Your task to perform on an android device: move an email to a new category in the gmail app Image 0: 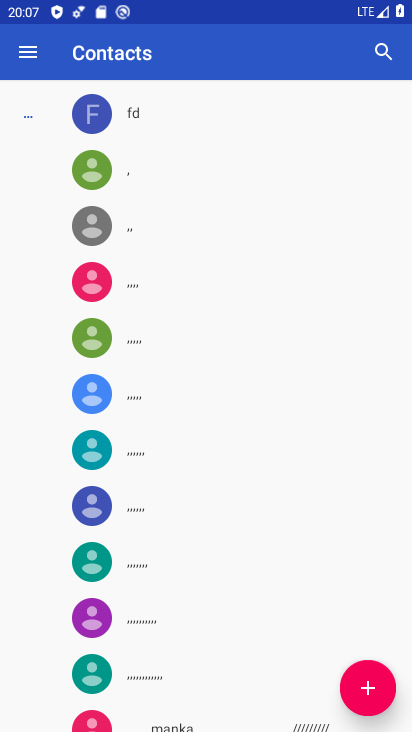
Step 0: press home button
Your task to perform on an android device: move an email to a new category in the gmail app Image 1: 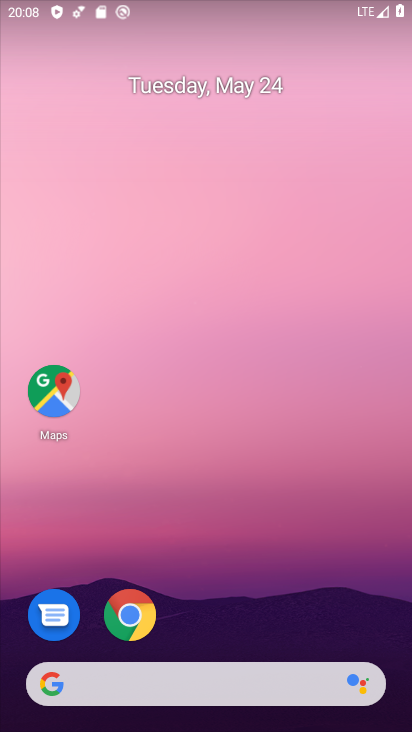
Step 1: drag from (186, 592) to (201, 391)
Your task to perform on an android device: move an email to a new category in the gmail app Image 2: 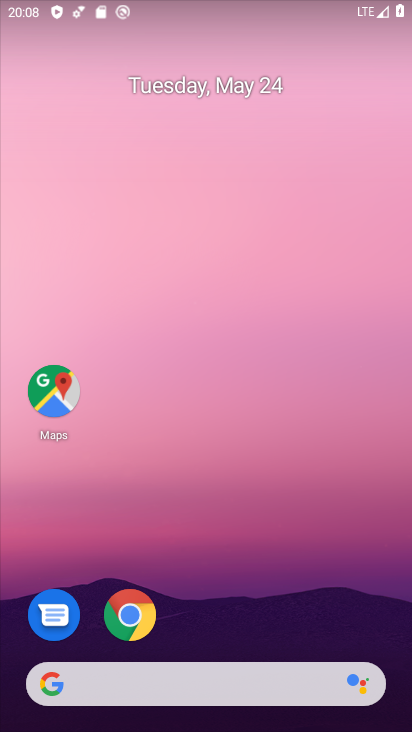
Step 2: drag from (267, 506) to (263, 224)
Your task to perform on an android device: move an email to a new category in the gmail app Image 3: 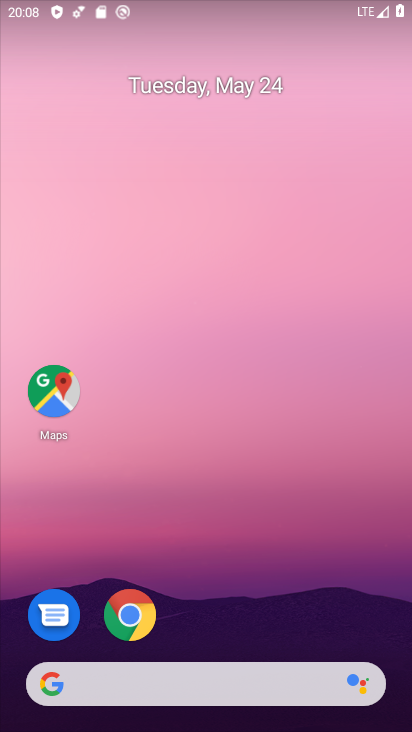
Step 3: drag from (196, 548) to (227, 287)
Your task to perform on an android device: move an email to a new category in the gmail app Image 4: 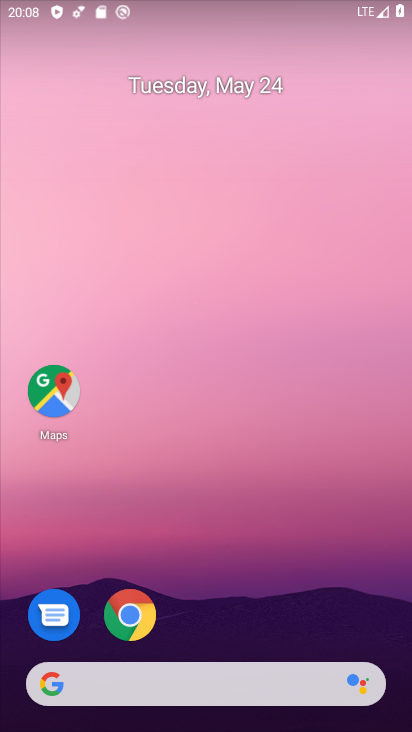
Step 4: drag from (220, 600) to (256, 235)
Your task to perform on an android device: move an email to a new category in the gmail app Image 5: 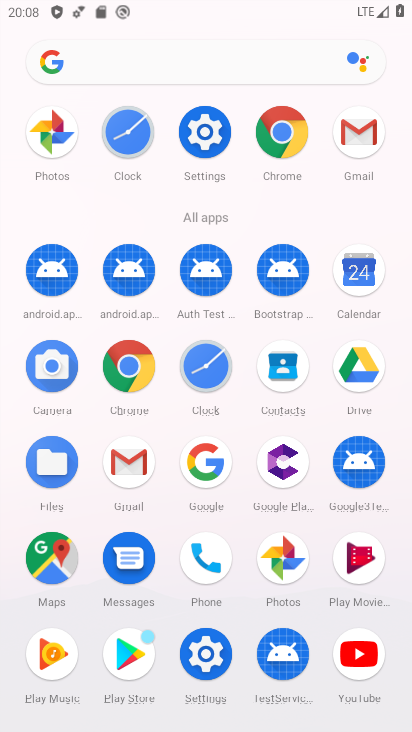
Step 5: click (127, 460)
Your task to perform on an android device: move an email to a new category in the gmail app Image 6: 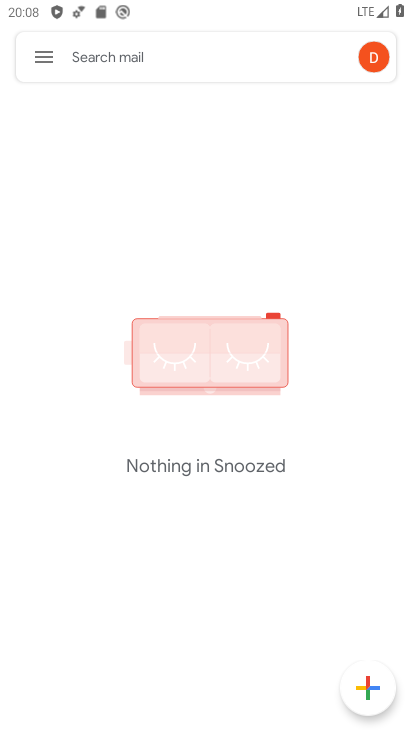
Step 6: click (34, 52)
Your task to perform on an android device: move an email to a new category in the gmail app Image 7: 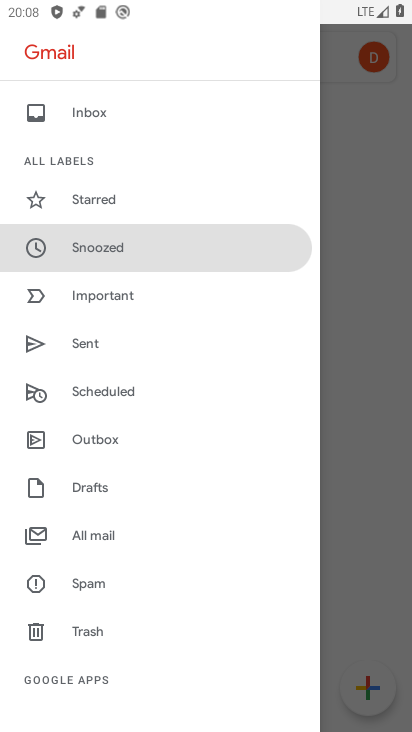
Step 7: click (103, 539)
Your task to perform on an android device: move an email to a new category in the gmail app Image 8: 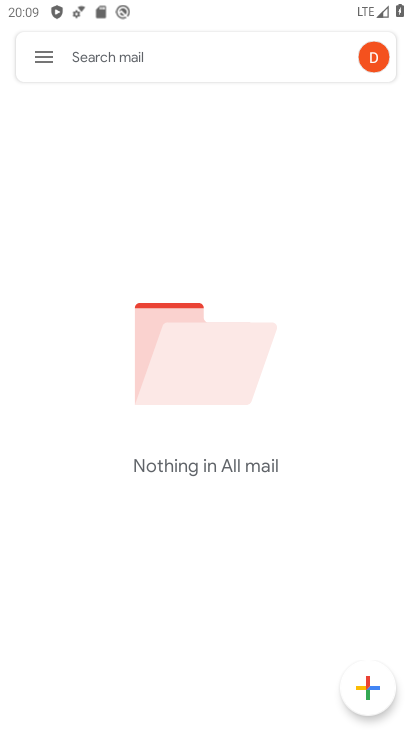
Step 8: click (33, 56)
Your task to perform on an android device: move an email to a new category in the gmail app Image 9: 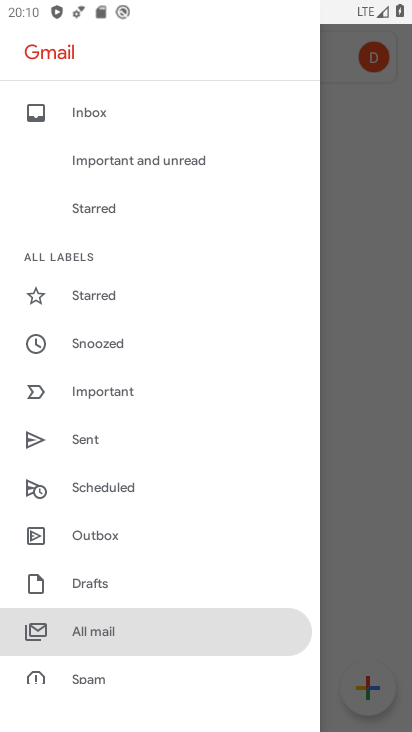
Step 9: task complete